Your task to perform on an android device: Open Maps and search for coffee Image 0: 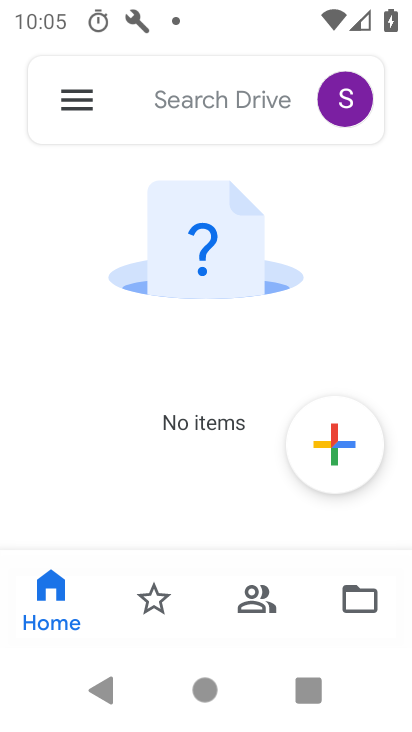
Step 0: press back button
Your task to perform on an android device: Open Maps and search for coffee Image 1: 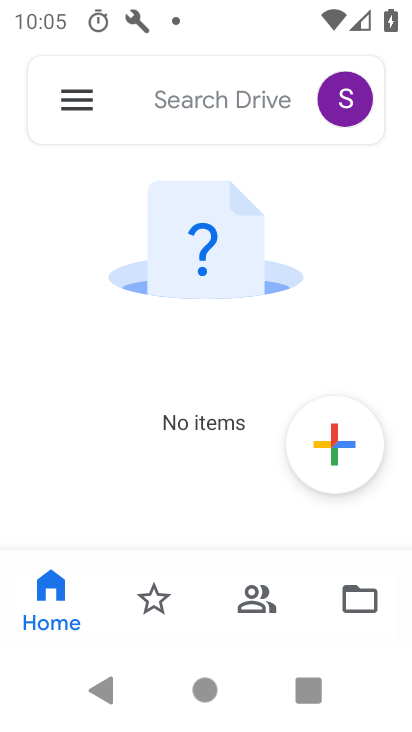
Step 1: press back button
Your task to perform on an android device: Open Maps and search for coffee Image 2: 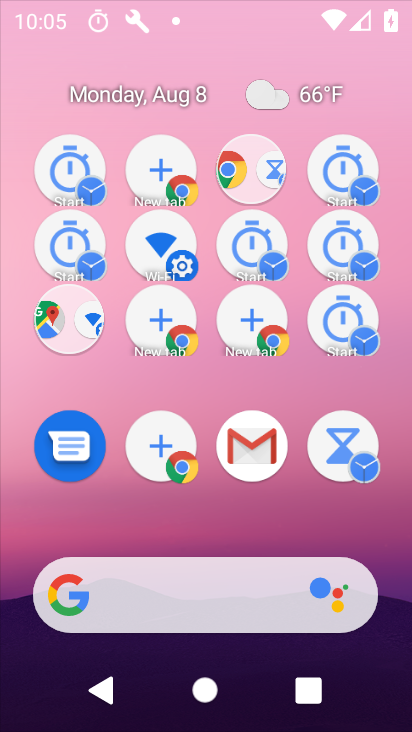
Step 2: press back button
Your task to perform on an android device: Open Maps and search for coffee Image 3: 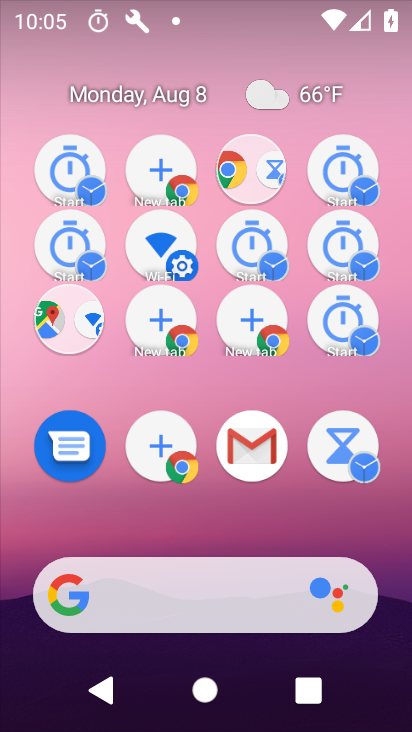
Step 3: press home button
Your task to perform on an android device: Open Maps and search for coffee Image 4: 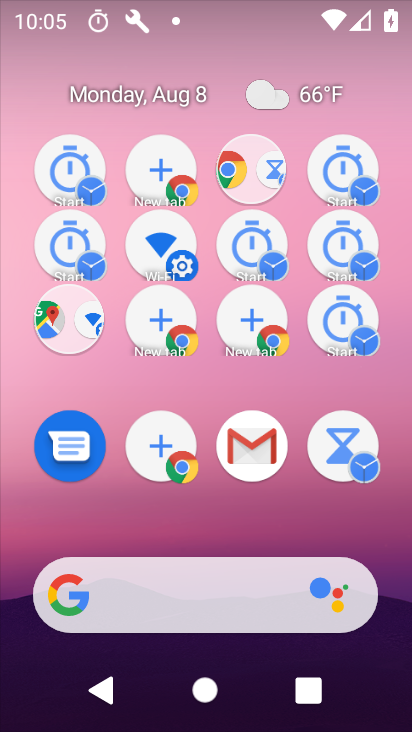
Step 4: drag from (233, 471) to (191, 207)
Your task to perform on an android device: Open Maps and search for coffee Image 5: 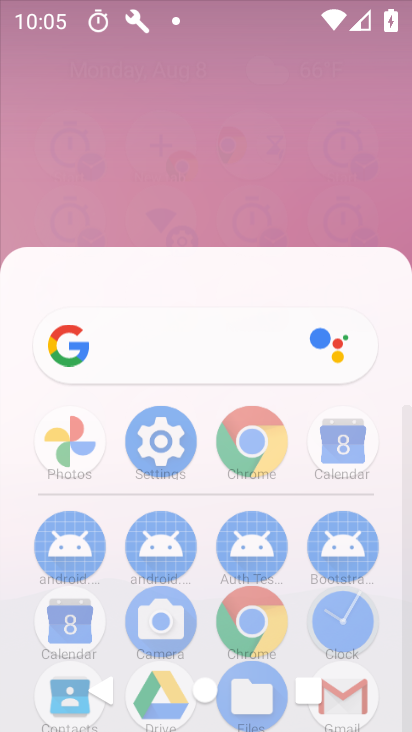
Step 5: click (194, 225)
Your task to perform on an android device: Open Maps and search for coffee Image 6: 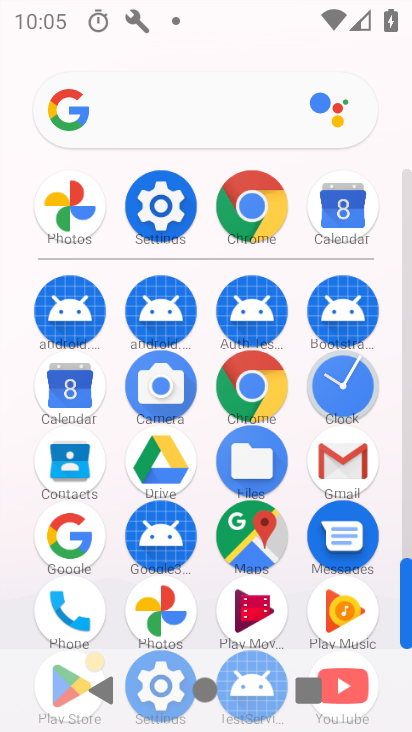
Step 6: click (211, 212)
Your task to perform on an android device: Open Maps and search for coffee Image 7: 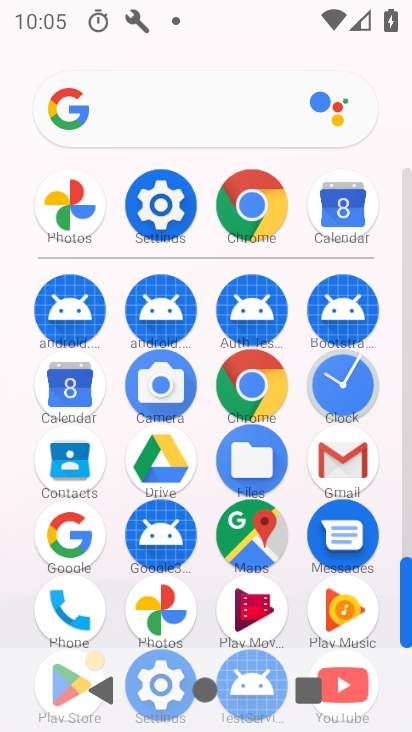
Step 7: click (256, 525)
Your task to perform on an android device: Open Maps and search for coffee Image 8: 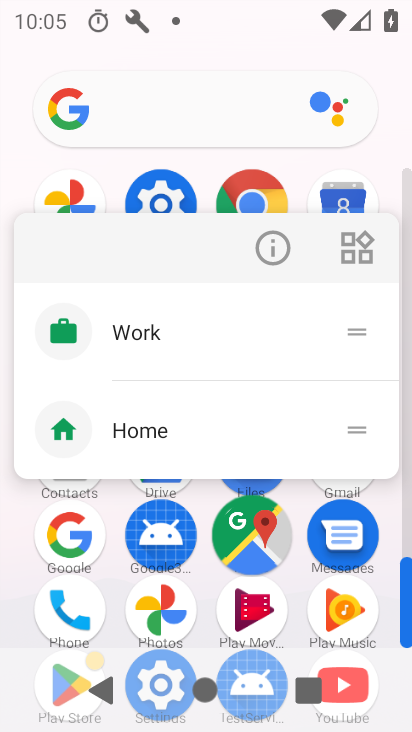
Step 8: click (257, 524)
Your task to perform on an android device: Open Maps and search for coffee Image 9: 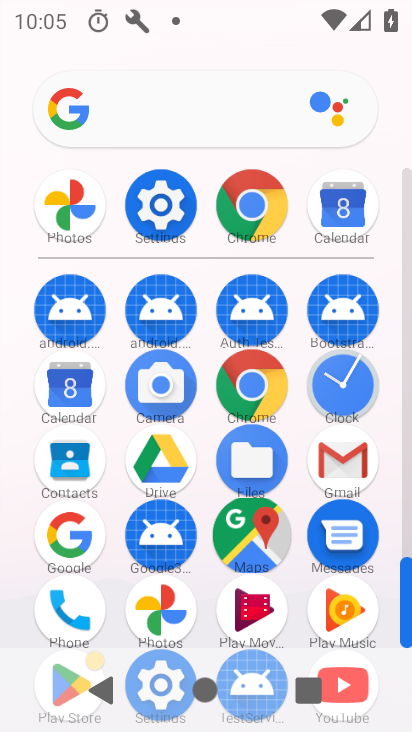
Step 9: click (260, 535)
Your task to perform on an android device: Open Maps and search for coffee Image 10: 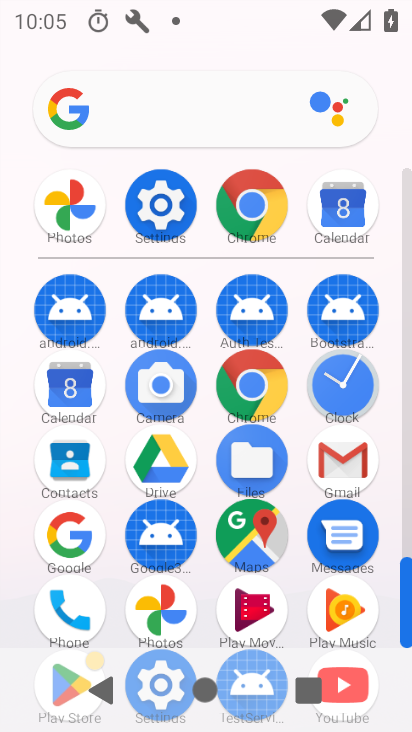
Step 10: click (260, 535)
Your task to perform on an android device: Open Maps and search for coffee Image 11: 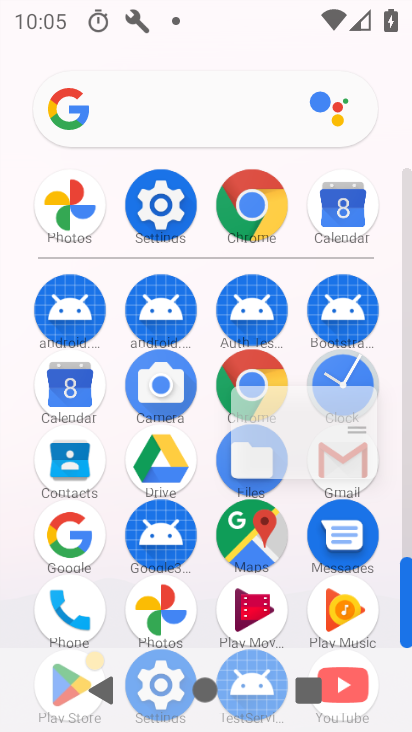
Step 11: click (260, 535)
Your task to perform on an android device: Open Maps and search for coffee Image 12: 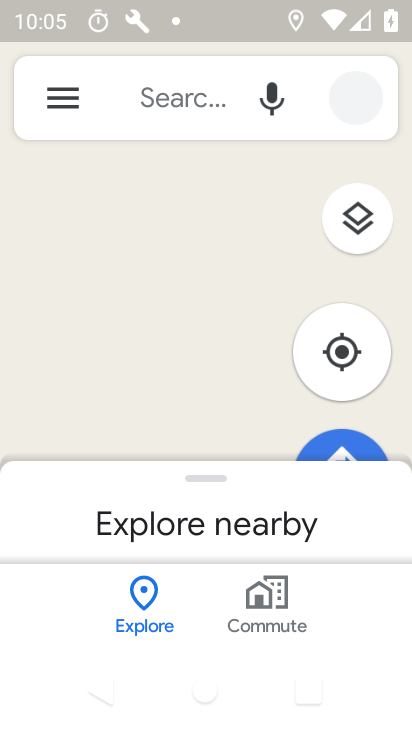
Step 12: click (132, 104)
Your task to perform on an android device: Open Maps and search for coffee Image 13: 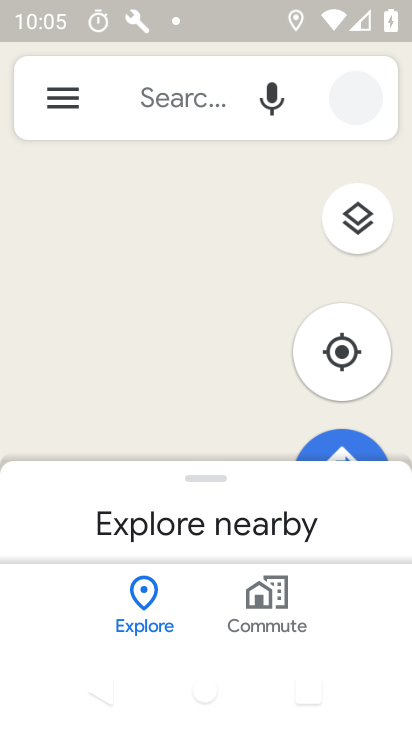
Step 13: click (132, 103)
Your task to perform on an android device: Open Maps and search for coffee Image 14: 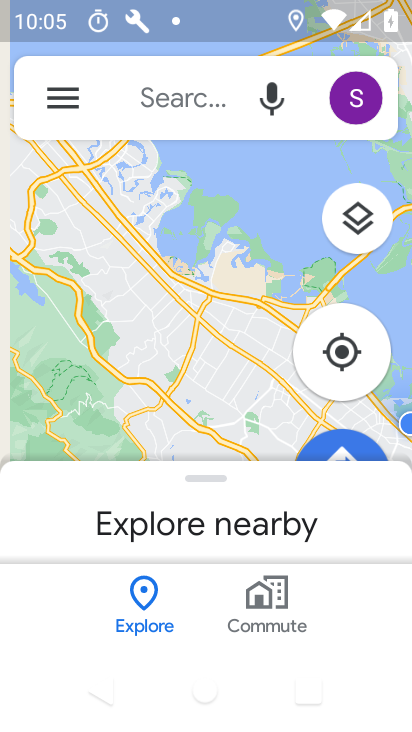
Step 14: click (133, 102)
Your task to perform on an android device: Open Maps and search for coffee Image 15: 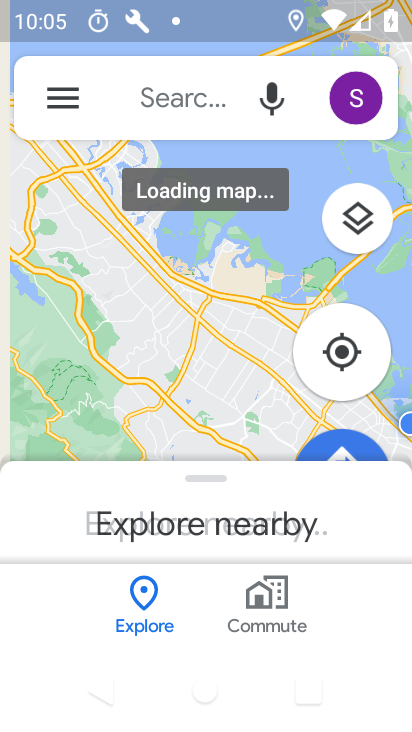
Step 15: click (133, 102)
Your task to perform on an android device: Open Maps and search for coffee Image 16: 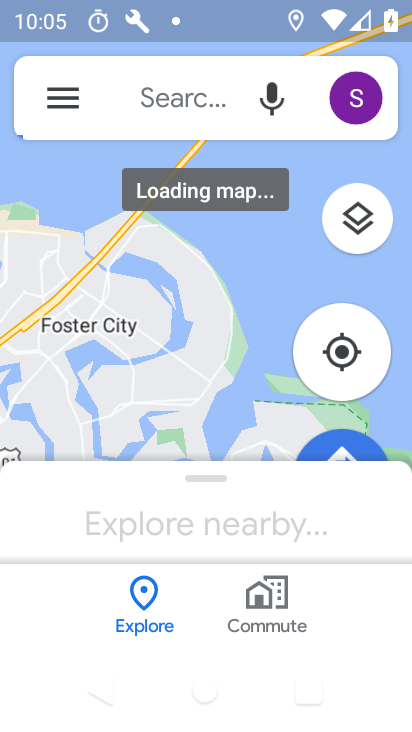
Step 16: click (140, 96)
Your task to perform on an android device: Open Maps and search for coffee Image 17: 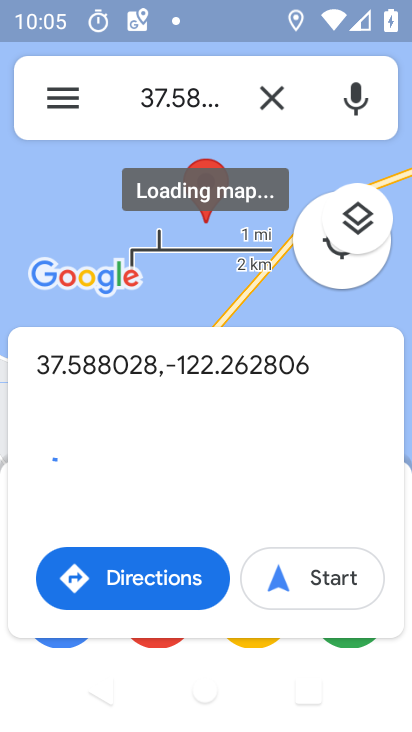
Step 17: click (113, 94)
Your task to perform on an android device: Open Maps and search for coffee Image 18: 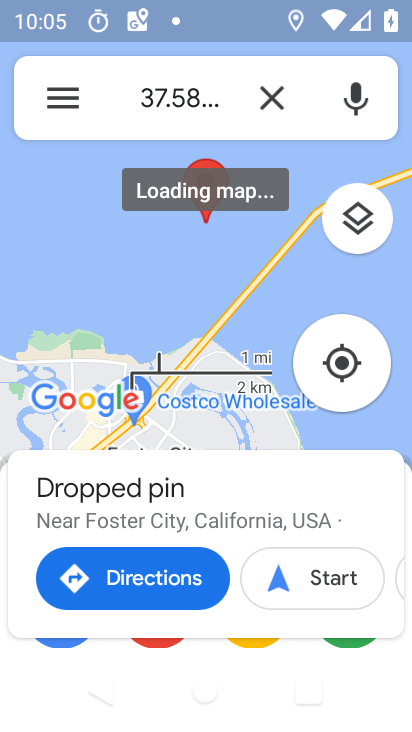
Step 18: click (119, 94)
Your task to perform on an android device: Open Maps and search for coffee Image 19: 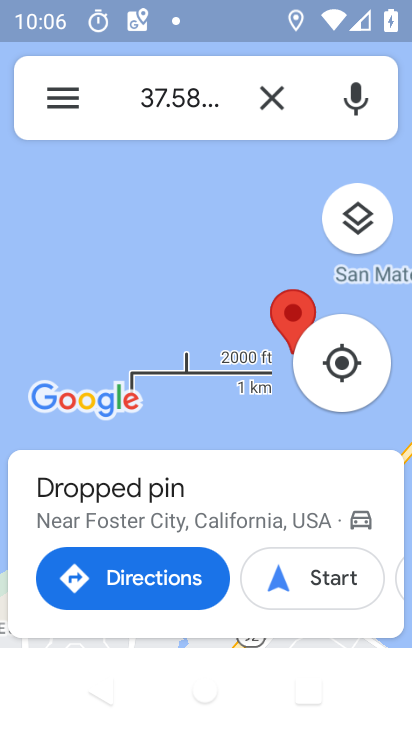
Step 19: click (275, 100)
Your task to perform on an android device: Open Maps and search for coffee Image 20: 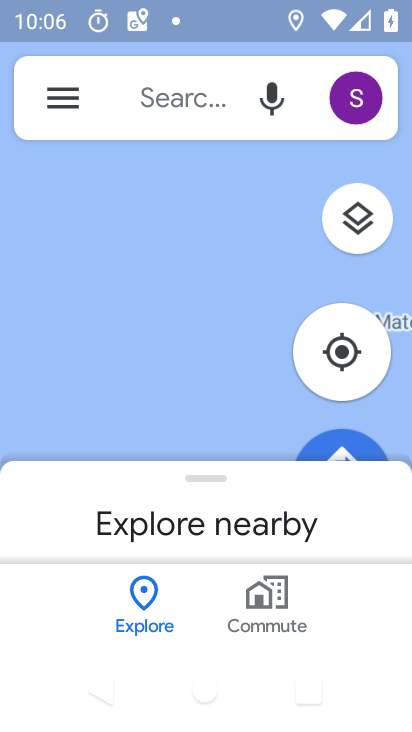
Step 20: click (107, 102)
Your task to perform on an android device: Open Maps and search for coffee Image 21: 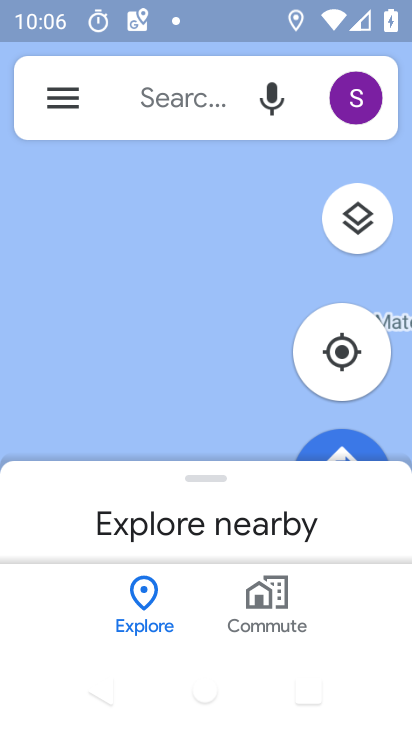
Step 21: click (110, 106)
Your task to perform on an android device: Open Maps and search for coffee Image 22: 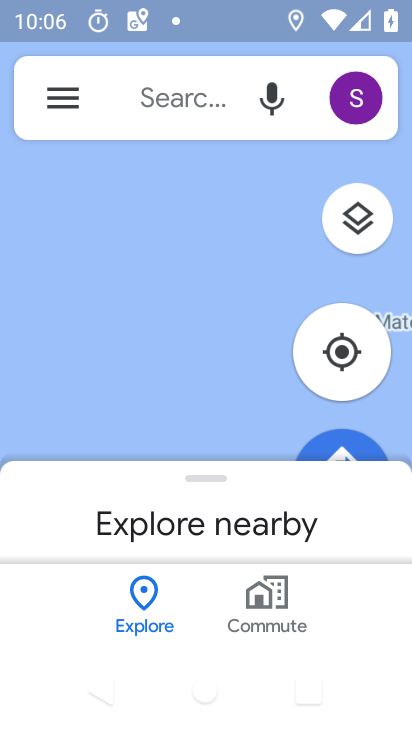
Step 22: click (111, 106)
Your task to perform on an android device: Open Maps and search for coffee Image 23: 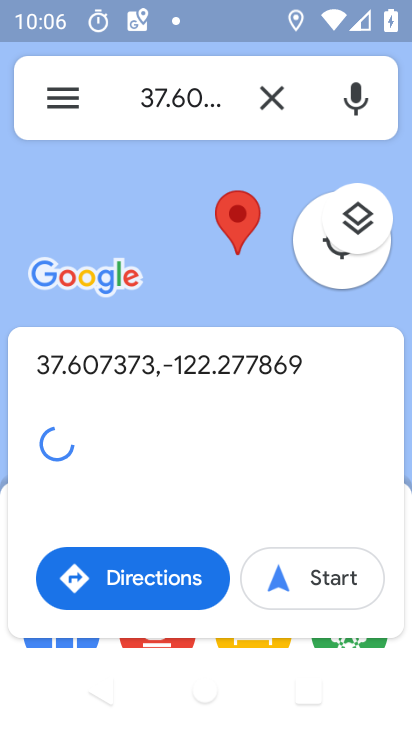
Step 23: click (119, 99)
Your task to perform on an android device: Open Maps and search for coffee Image 24: 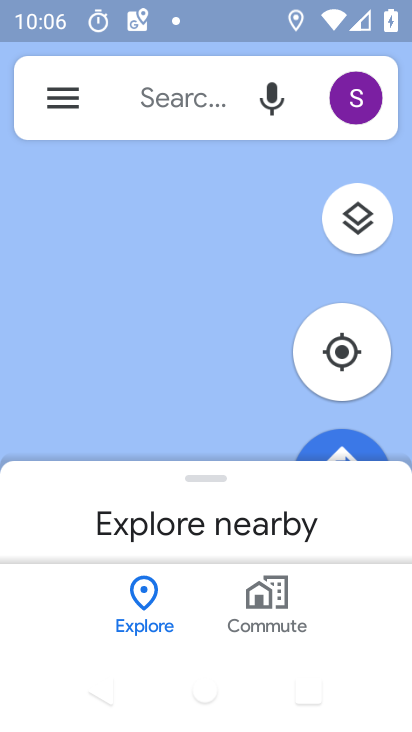
Step 24: click (115, 103)
Your task to perform on an android device: Open Maps and search for coffee Image 25: 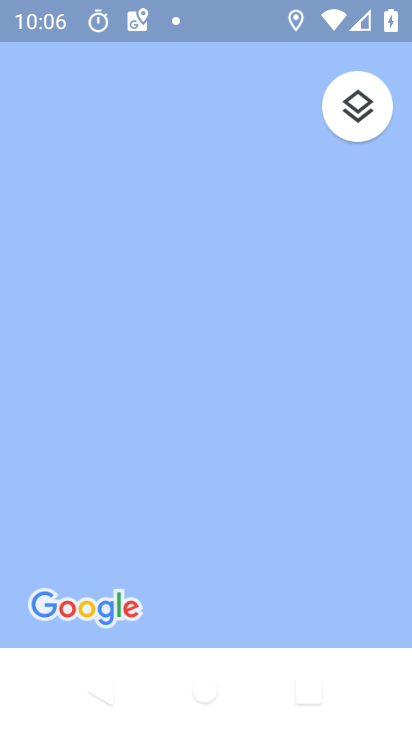
Step 25: click (117, 101)
Your task to perform on an android device: Open Maps and search for coffee Image 26: 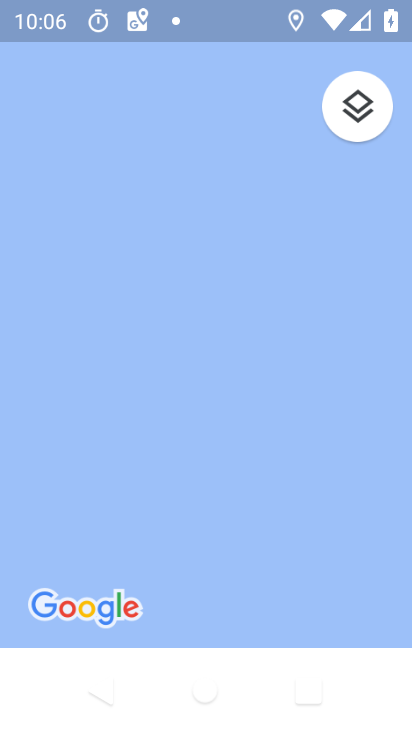
Step 26: drag from (166, 86) to (186, 131)
Your task to perform on an android device: Open Maps and search for coffee Image 27: 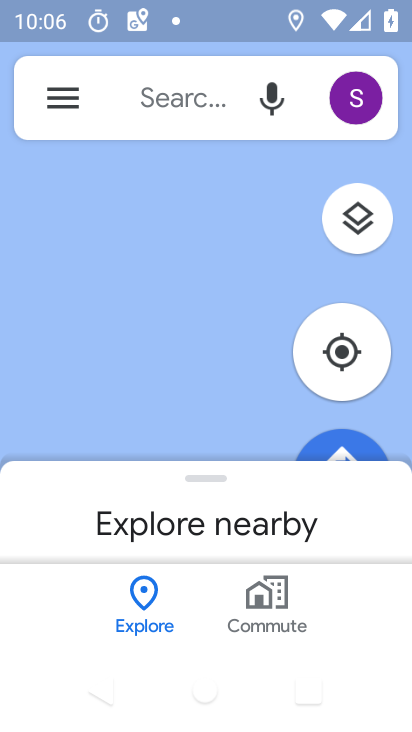
Step 27: click (193, 159)
Your task to perform on an android device: Open Maps and search for coffee Image 28: 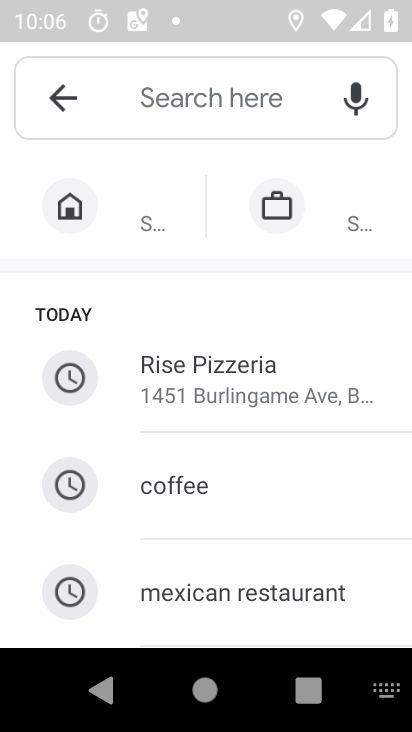
Step 28: click (110, 97)
Your task to perform on an android device: Open Maps and search for coffee Image 29: 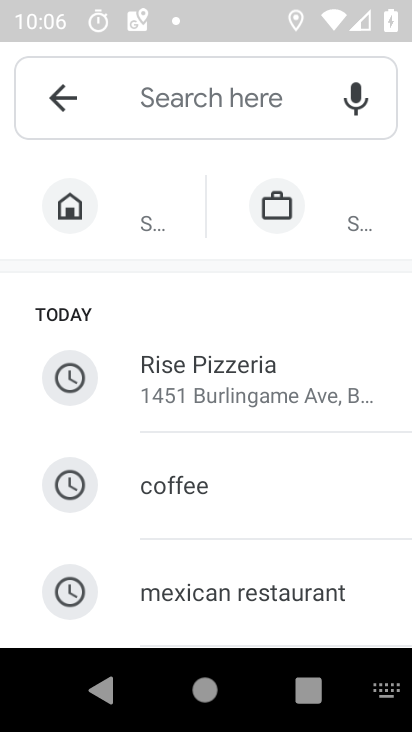
Step 29: click (188, 496)
Your task to perform on an android device: Open Maps and search for coffee Image 30: 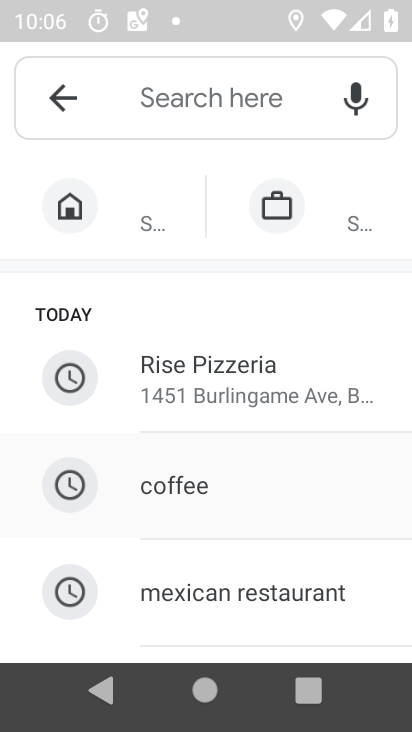
Step 30: click (164, 497)
Your task to perform on an android device: Open Maps and search for coffee Image 31: 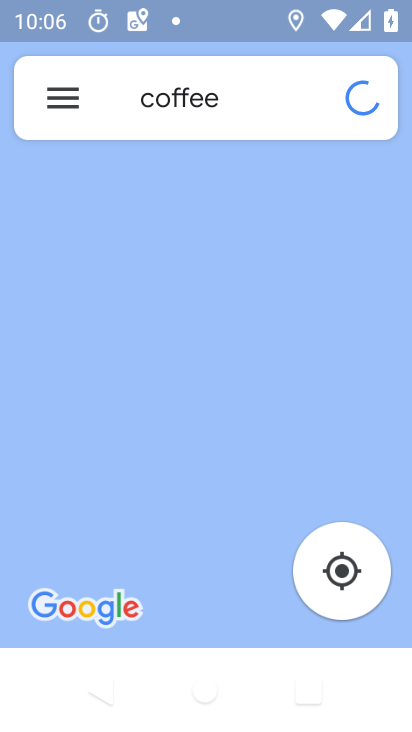
Step 31: click (175, 499)
Your task to perform on an android device: Open Maps and search for coffee Image 32: 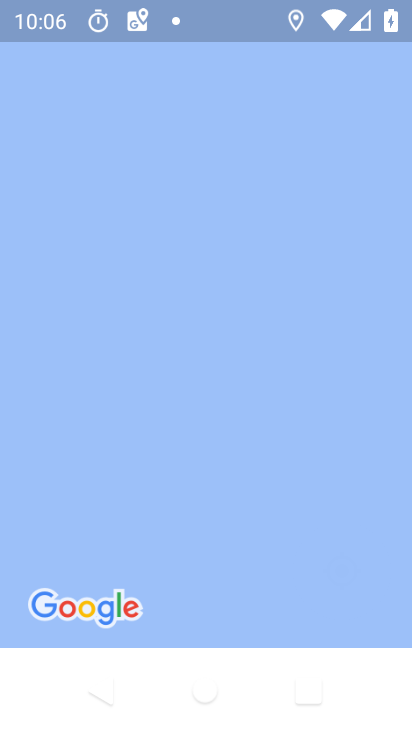
Step 32: task complete